Your task to perform on an android device: Open accessibility settings Image 0: 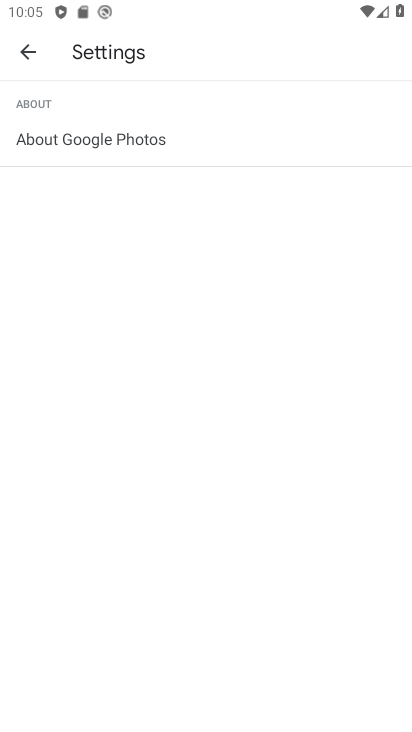
Step 0: press home button
Your task to perform on an android device: Open accessibility settings Image 1: 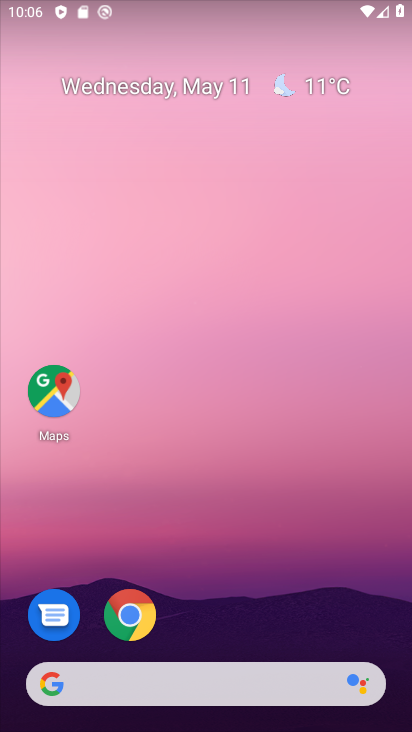
Step 1: drag from (265, 621) to (257, 127)
Your task to perform on an android device: Open accessibility settings Image 2: 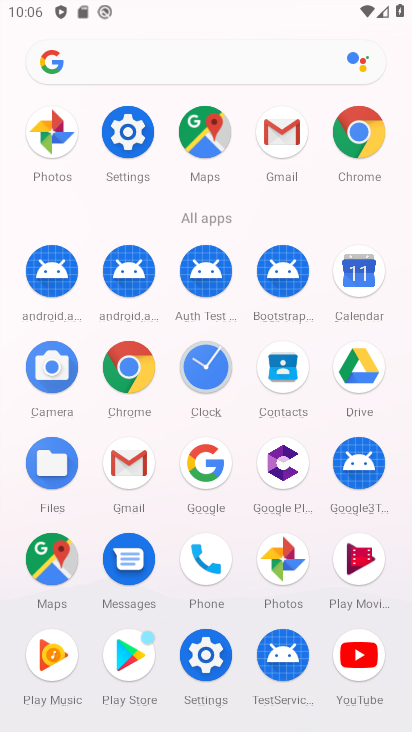
Step 2: click (134, 121)
Your task to perform on an android device: Open accessibility settings Image 3: 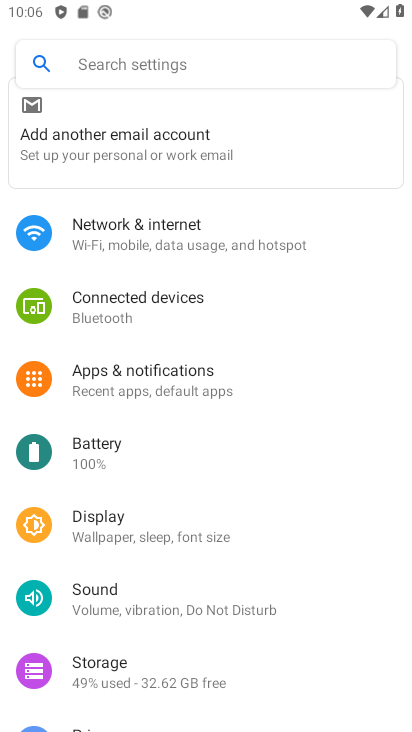
Step 3: drag from (166, 637) to (299, 48)
Your task to perform on an android device: Open accessibility settings Image 4: 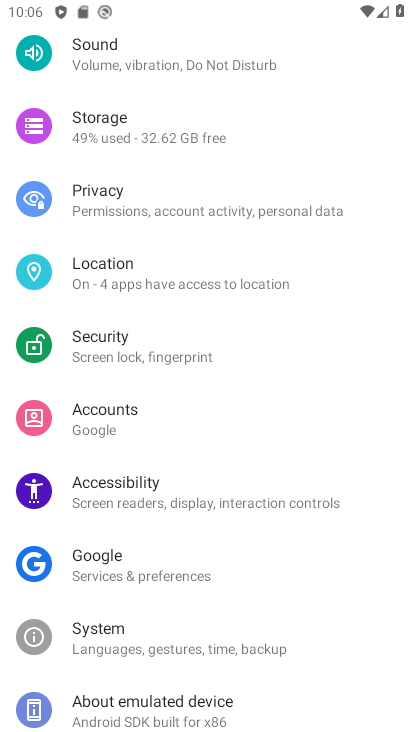
Step 4: click (169, 490)
Your task to perform on an android device: Open accessibility settings Image 5: 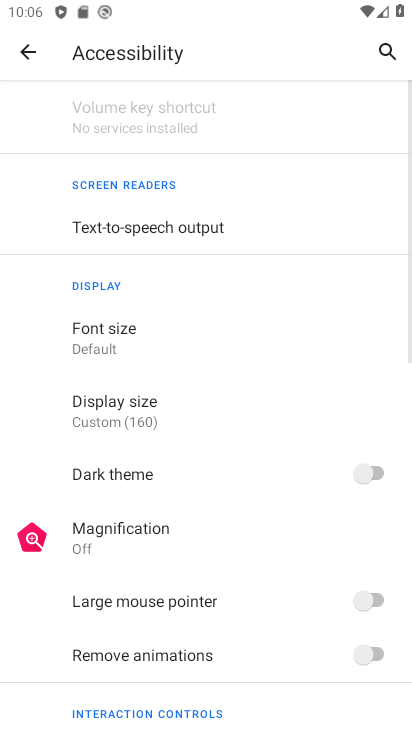
Step 5: task complete